Your task to perform on an android device: see tabs open on other devices in the chrome app Image 0: 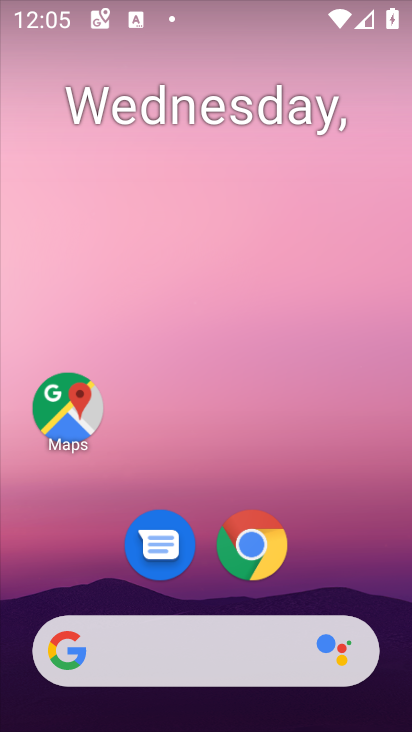
Step 0: click (248, 545)
Your task to perform on an android device: see tabs open on other devices in the chrome app Image 1: 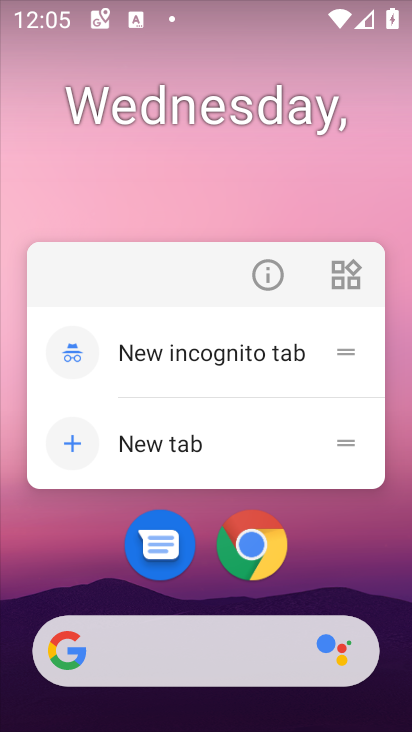
Step 1: click (251, 546)
Your task to perform on an android device: see tabs open on other devices in the chrome app Image 2: 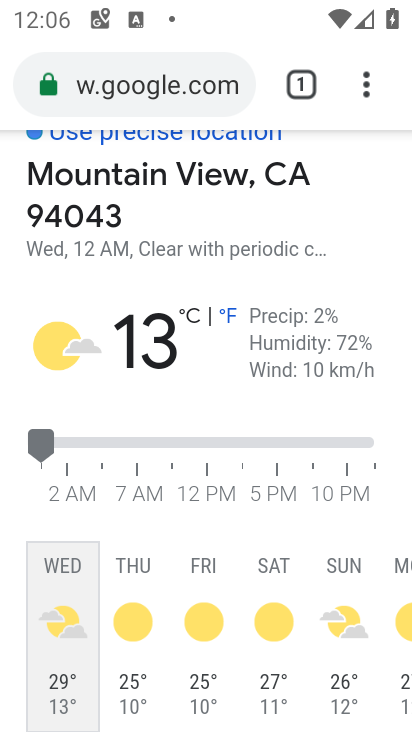
Step 2: click (366, 83)
Your task to perform on an android device: see tabs open on other devices in the chrome app Image 3: 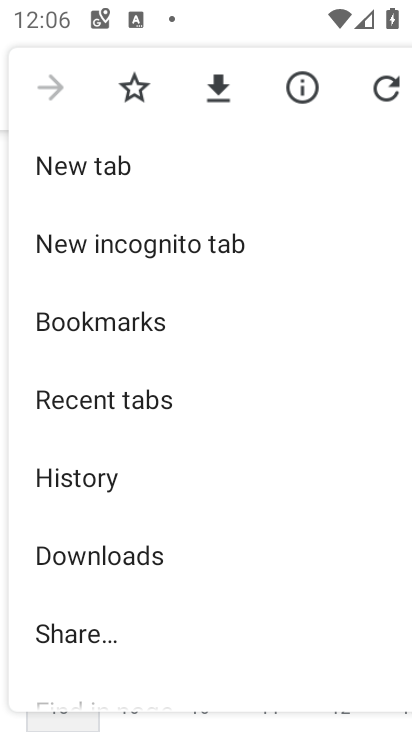
Step 3: click (127, 407)
Your task to perform on an android device: see tabs open on other devices in the chrome app Image 4: 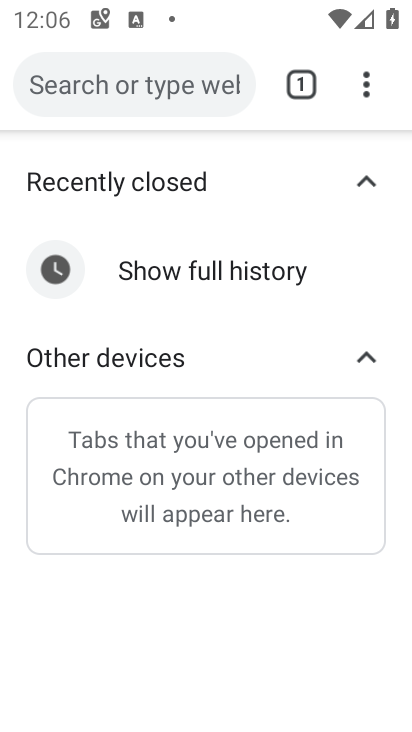
Step 4: task complete